Your task to perform on an android device: Go to internet settings Image 0: 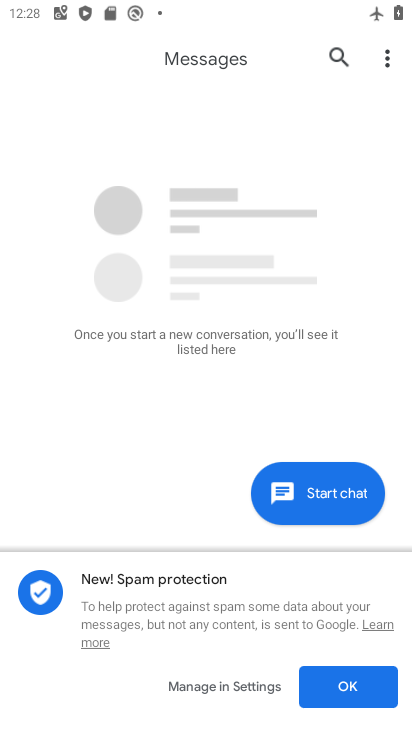
Step 0: press home button
Your task to perform on an android device: Go to internet settings Image 1: 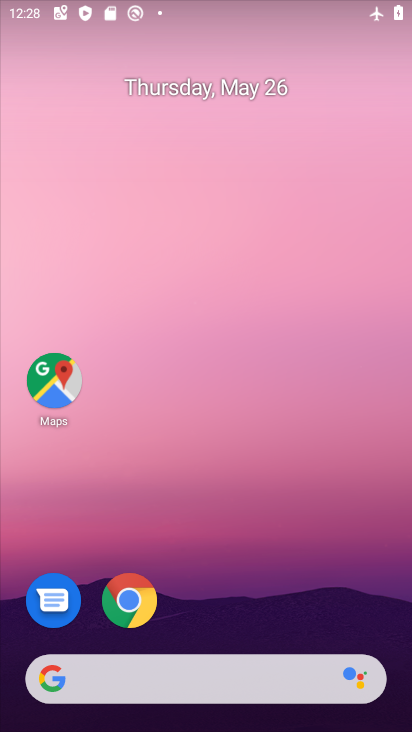
Step 1: drag from (374, 371) to (376, 0)
Your task to perform on an android device: Go to internet settings Image 2: 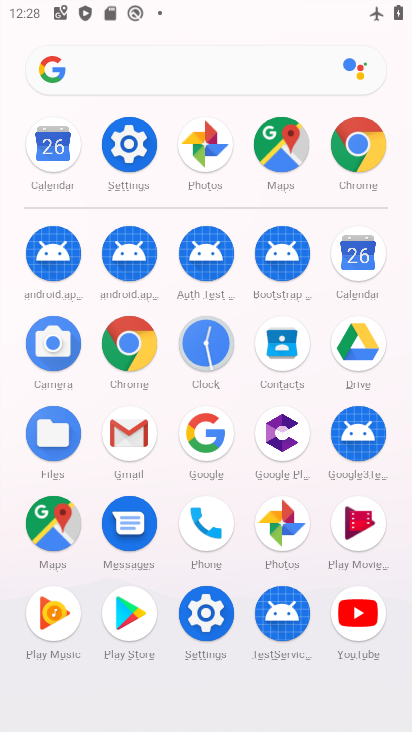
Step 2: click (128, 143)
Your task to perform on an android device: Go to internet settings Image 3: 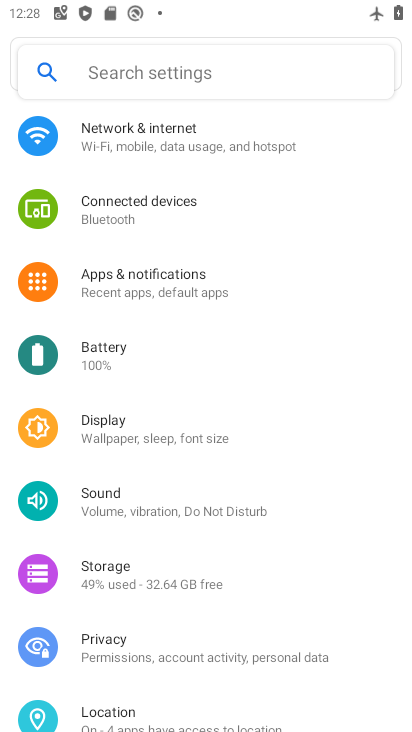
Step 3: click (204, 140)
Your task to perform on an android device: Go to internet settings Image 4: 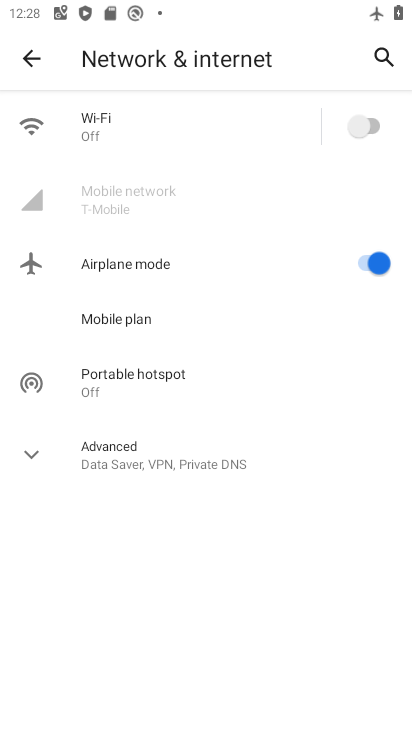
Step 4: click (180, 440)
Your task to perform on an android device: Go to internet settings Image 5: 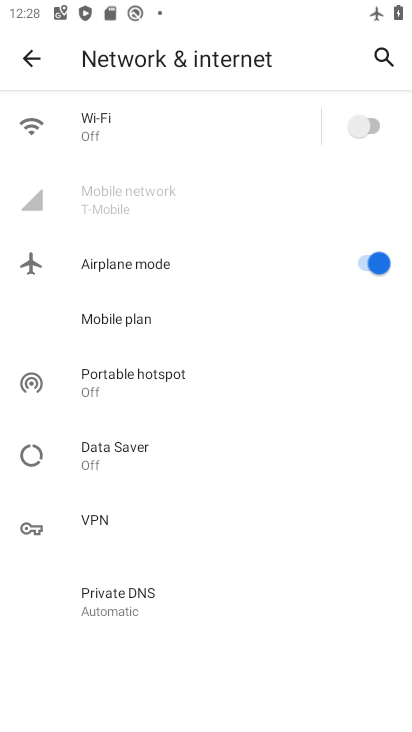
Step 5: task complete